Your task to perform on an android device: Find coffee shops on Maps Image 0: 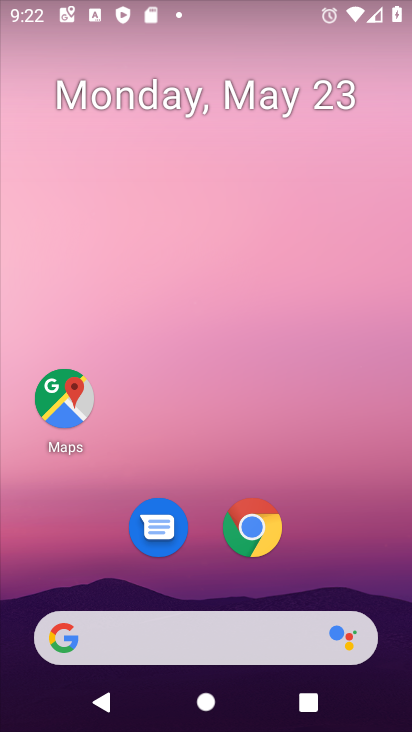
Step 0: drag from (332, 523) to (303, 74)
Your task to perform on an android device: Find coffee shops on Maps Image 1: 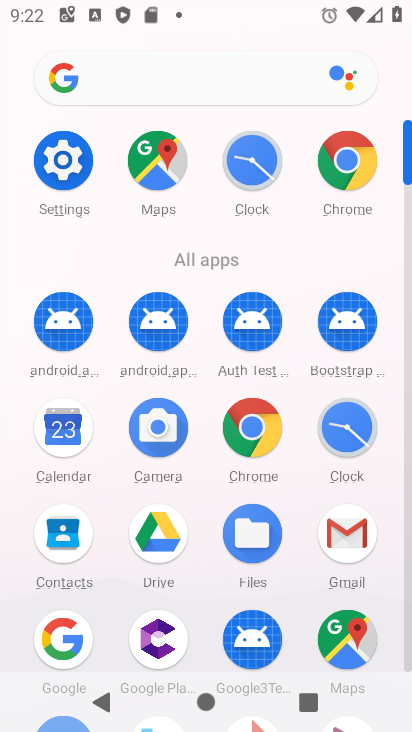
Step 1: drag from (21, 596) to (26, 206)
Your task to perform on an android device: Find coffee shops on Maps Image 2: 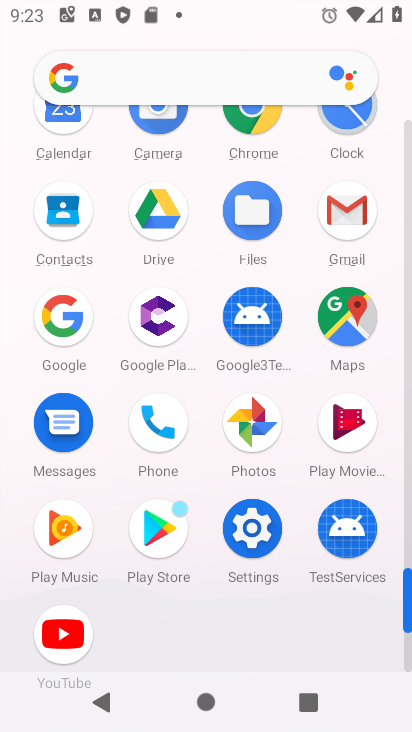
Step 2: click (347, 314)
Your task to perform on an android device: Find coffee shops on Maps Image 3: 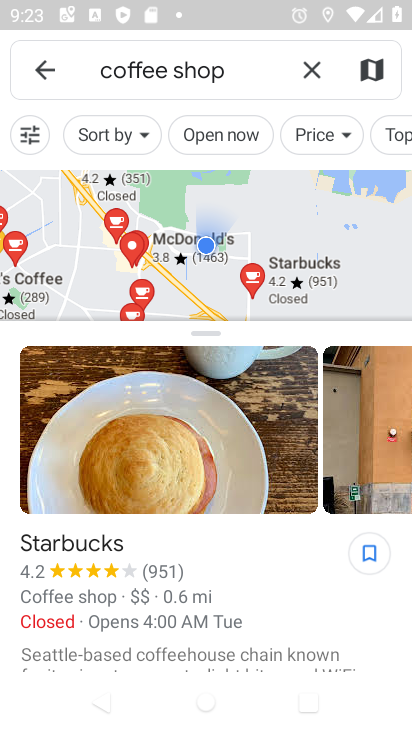
Step 3: task complete